Your task to perform on an android device: clear history in the chrome app Image 0: 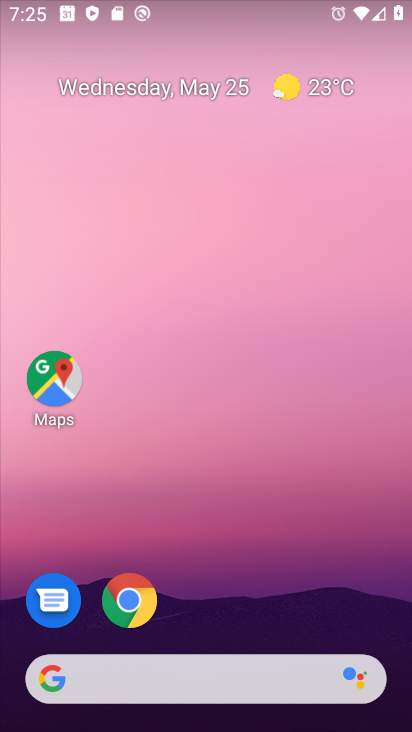
Step 0: click (130, 597)
Your task to perform on an android device: clear history in the chrome app Image 1: 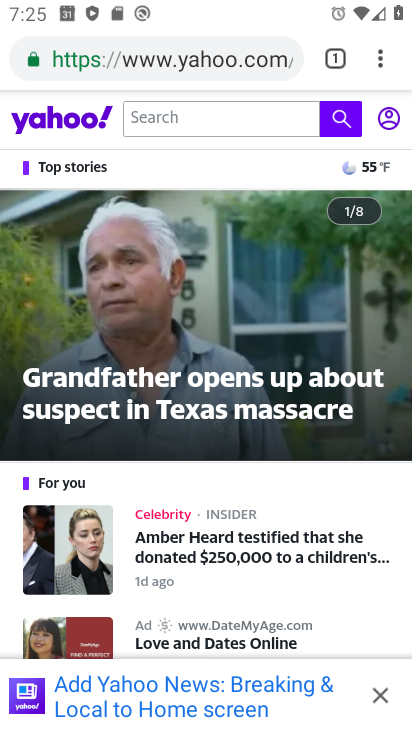
Step 1: click (379, 56)
Your task to perform on an android device: clear history in the chrome app Image 2: 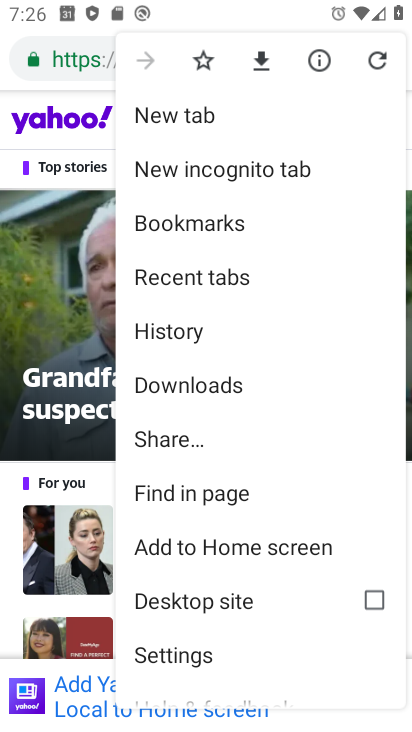
Step 2: click (185, 329)
Your task to perform on an android device: clear history in the chrome app Image 3: 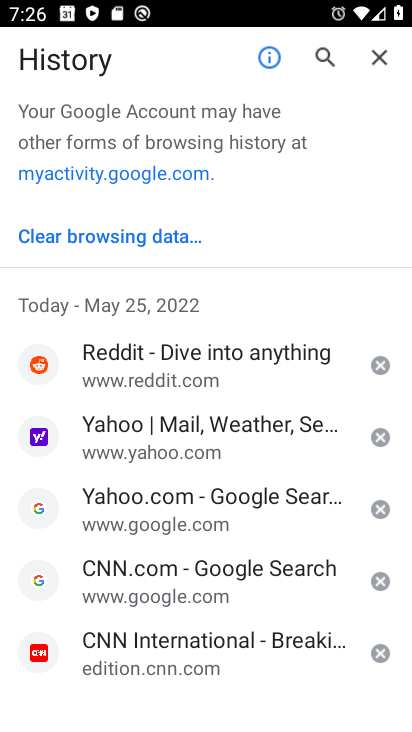
Step 3: click (130, 237)
Your task to perform on an android device: clear history in the chrome app Image 4: 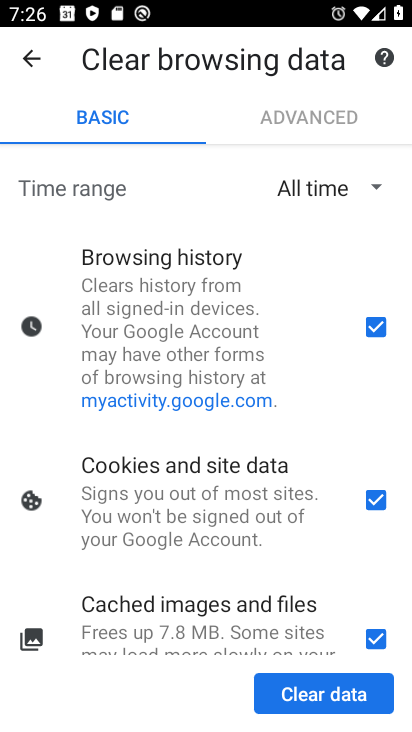
Step 4: click (326, 698)
Your task to perform on an android device: clear history in the chrome app Image 5: 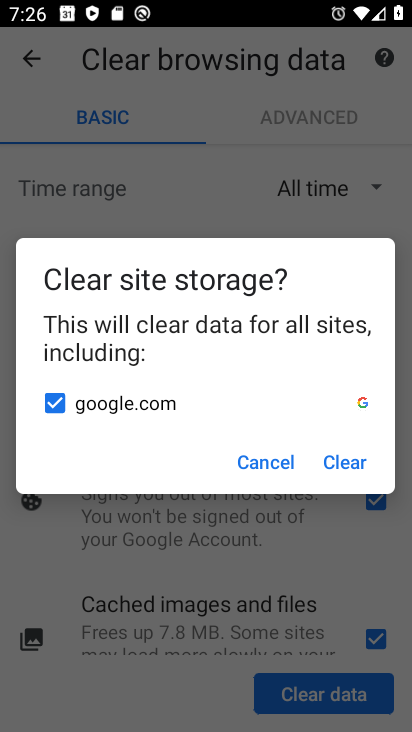
Step 5: click (349, 459)
Your task to perform on an android device: clear history in the chrome app Image 6: 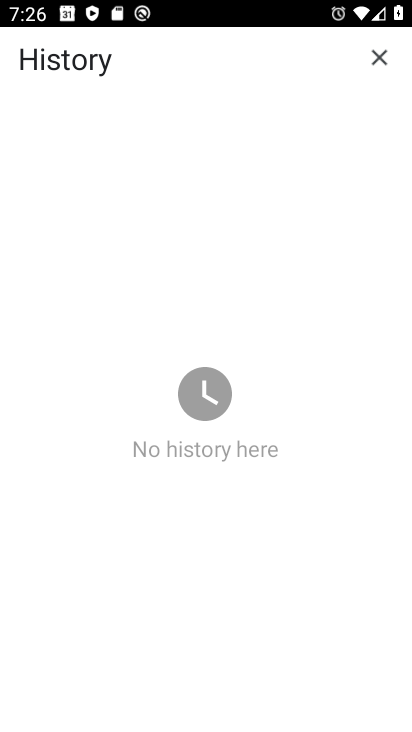
Step 6: task complete